Your task to perform on an android device: Open the web browser Image 0: 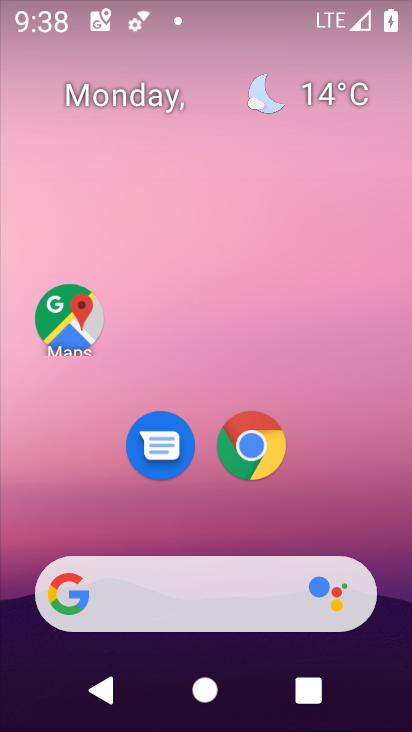
Step 0: click (248, 447)
Your task to perform on an android device: Open the web browser Image 1: 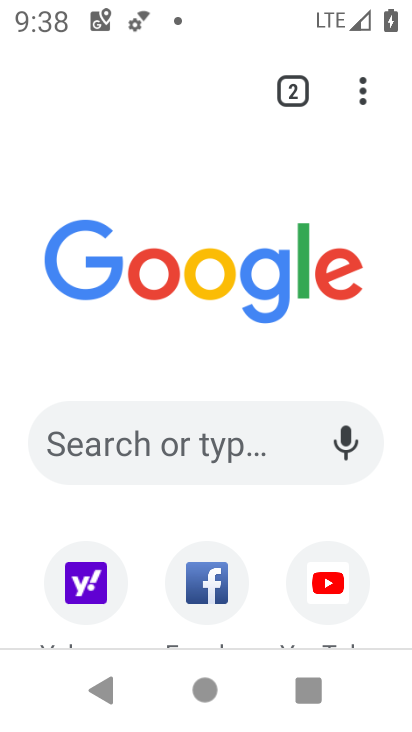
Step 1: click (363, 90)
Your task to perform on an android device: Open the web browser Image 2: 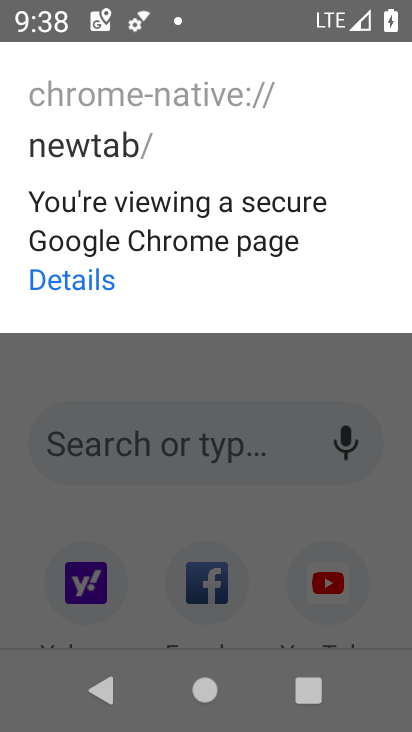
Step 2: click (285, 545)
Your task to perform on an android device: Open the web browser Image 3: 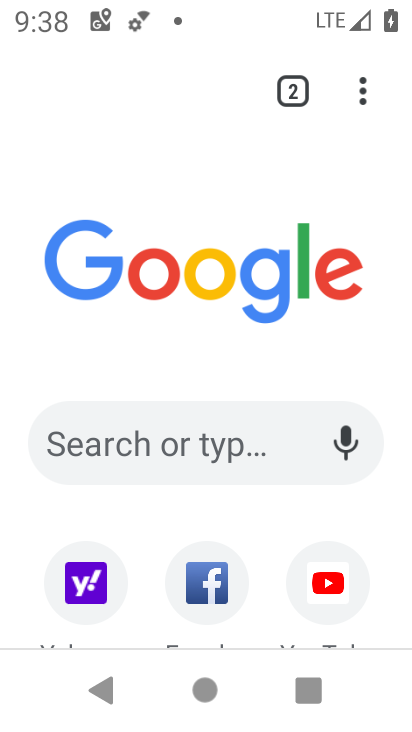
Step 3: task complete